Your task to perform on an android device: What's the latest news in planetary science? Image 0: 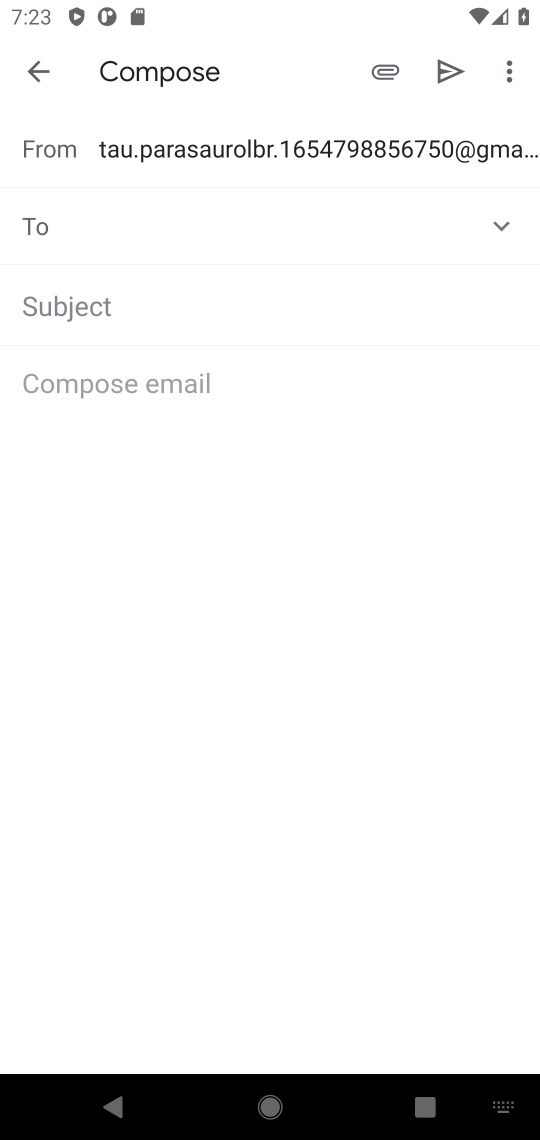
Step 0: press home button
Your task to perform on an android device: What's the latest news in planetary science? Image 1: 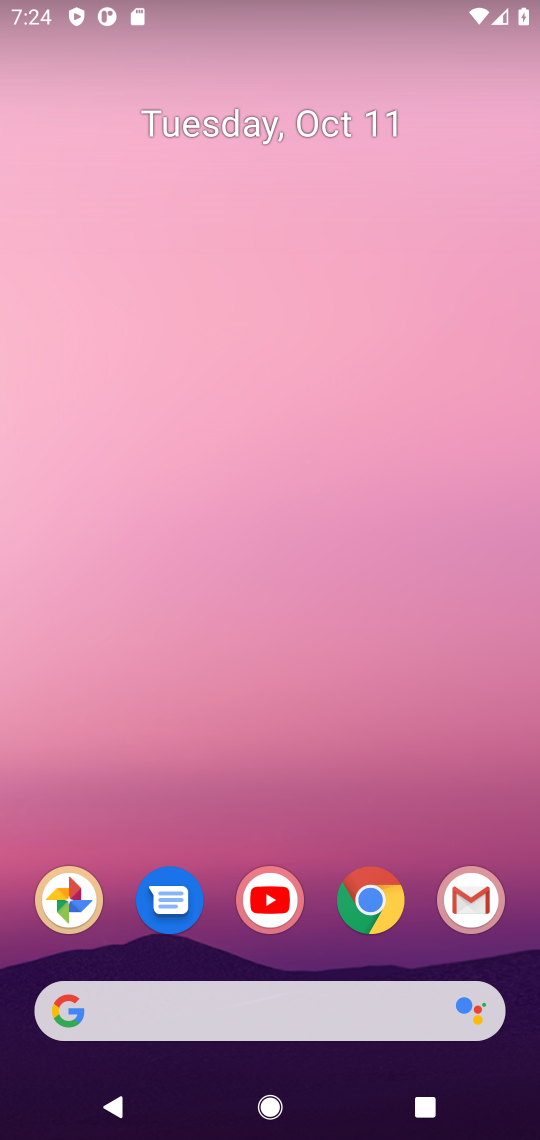
Step 1: click (377, 895)
Your task to perform on an android device: What's the latest news in planetary science? Image 2: 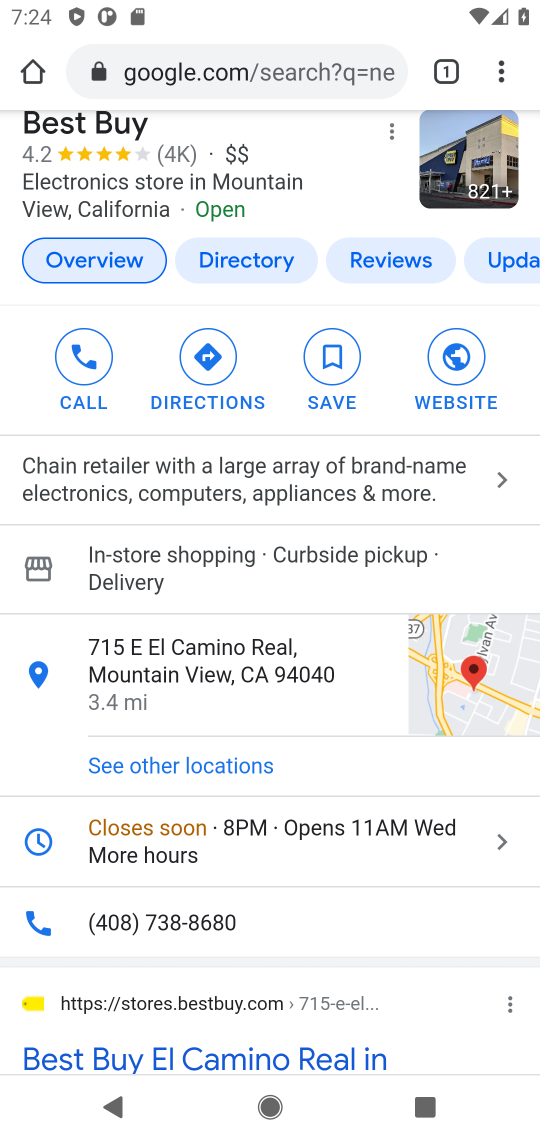
Step 2: click (204, 63)
Your task to perform on an android device: What's the latest news in planetary science? Image 3: 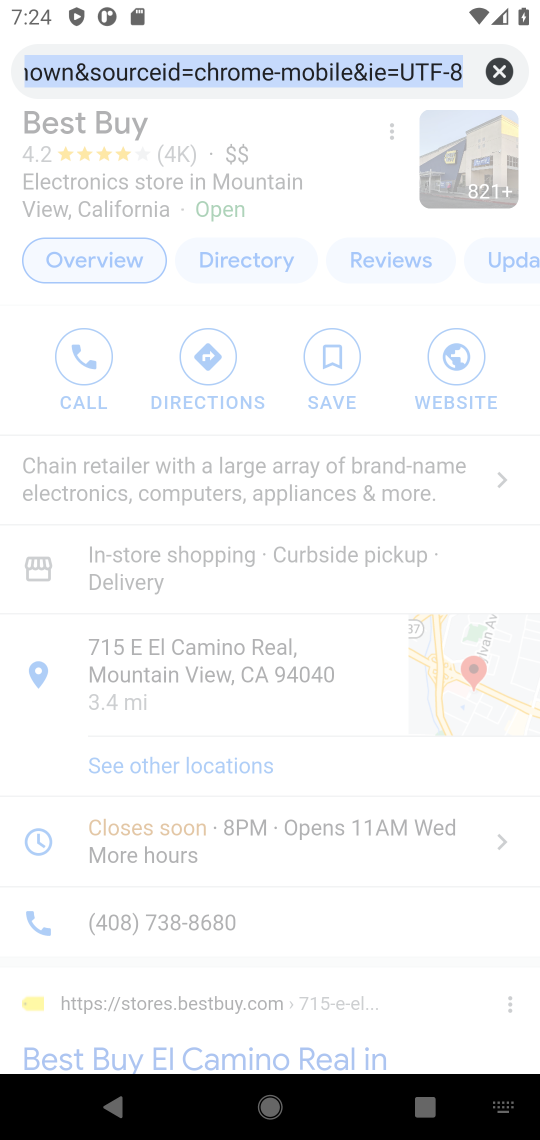
Step 3: type "latest news in planetary science"
Your task to perform on an android device: What's the latest news in planetary science? Image 4: 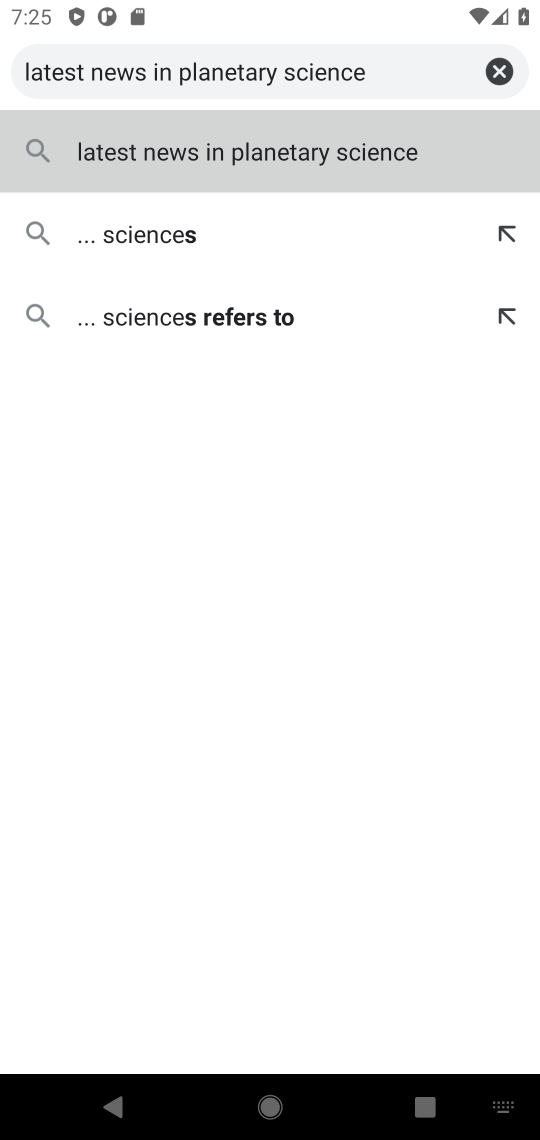
Step 4: click (481, 167)
Your task to perform on an android device: What's the latest news in planetary science? Image 5: 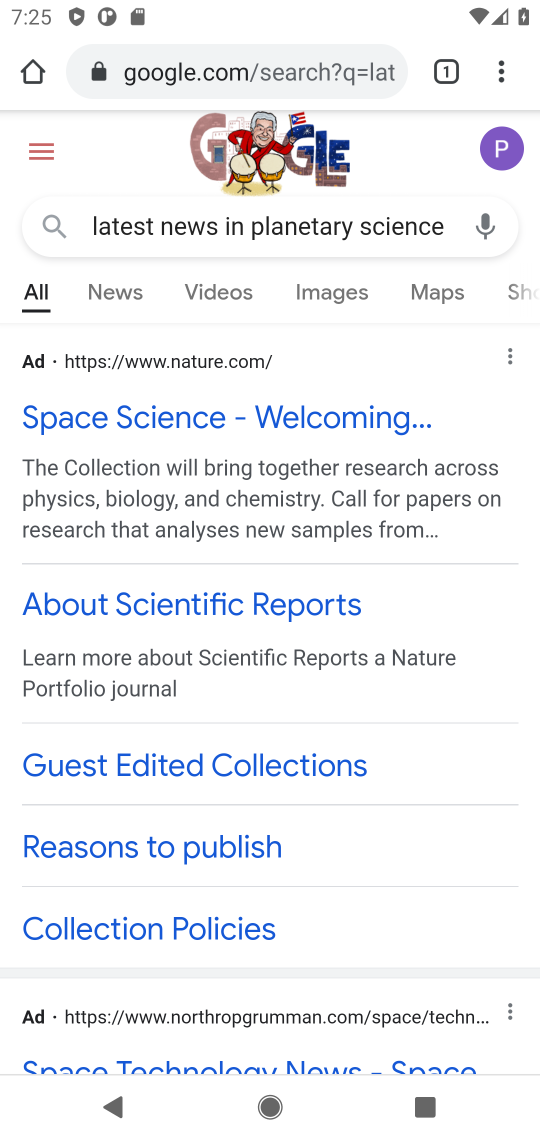
Step 5: click (110, 284)
Your task to perform on an android device: What's the latest news in planetary science? Image 6: 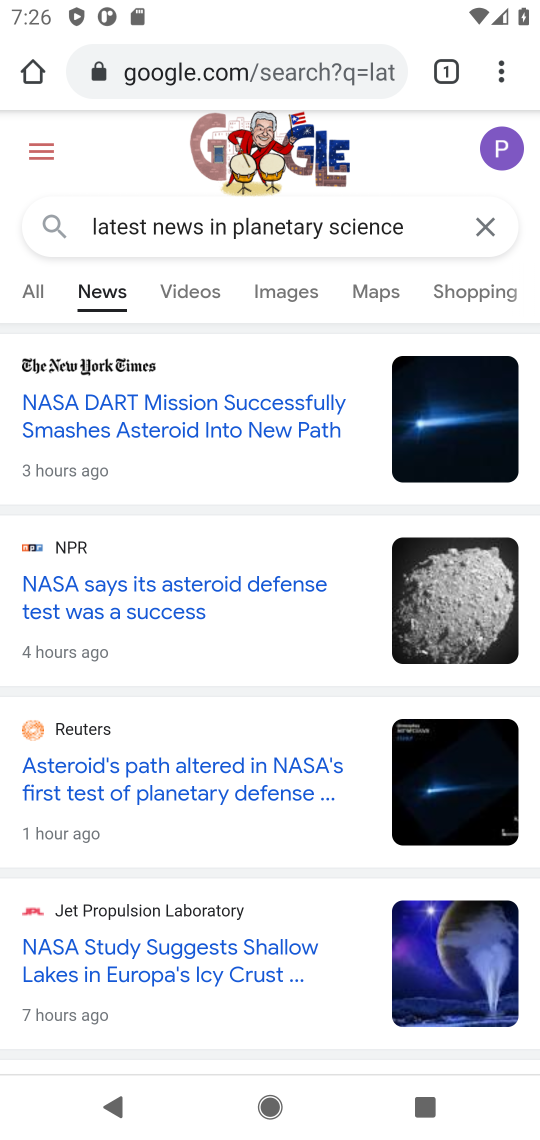
Step 6: task complete